Your task to perform on an android device: Open privacy settings Image 0: 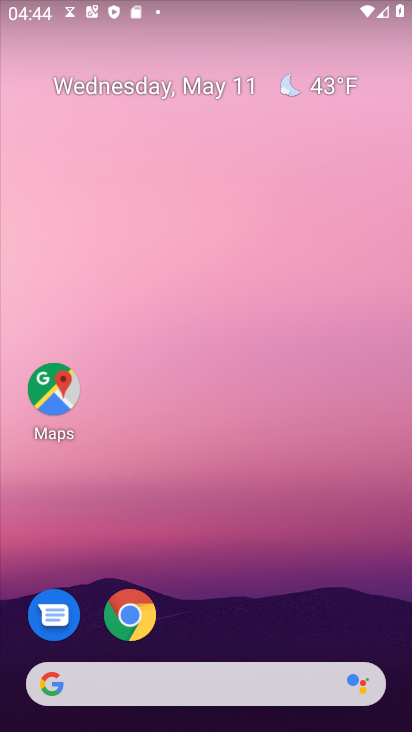
Step 0: drag from (253, 538) to (91, 16)
Your task to perform on an android device: Open privacy settings Image 1: 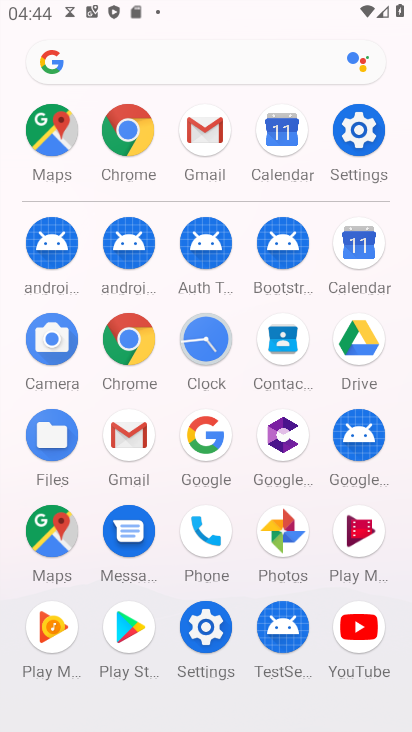
Step 1: drag from (6, 451) to (14, 153)
Your task to perform on an android device: Open privacy settings Image 2: 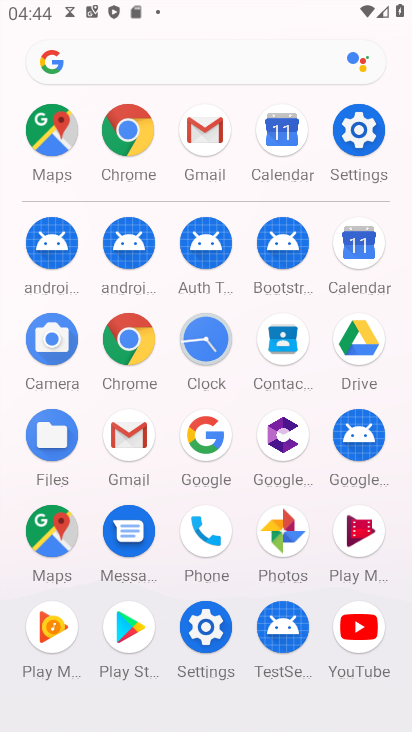
Step 2: drag from (8, 449) to (31, 164)
Your task to perform on an android device: Open privacy settings Image 3: 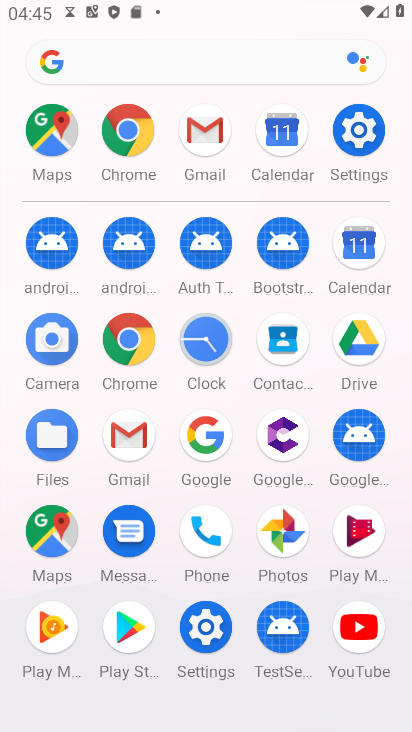
Step 3: click (206, 623)
Your task to perform on an android device: Open privacy settings Image 4: 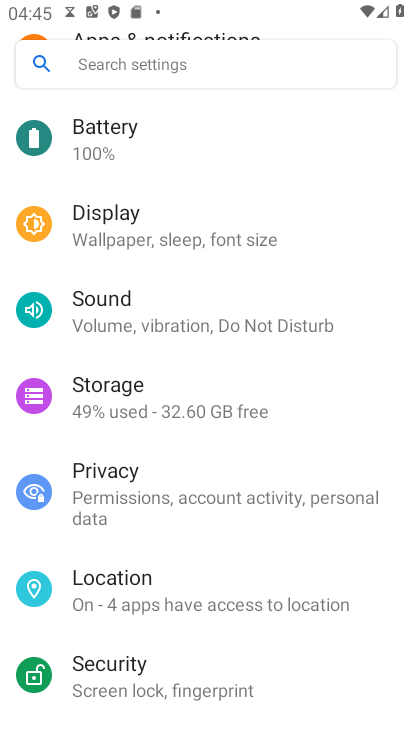
Step 4: drag from (177, 536) to (228, 175)
Your task to perform on an android device: Open privacy settings Image 5: 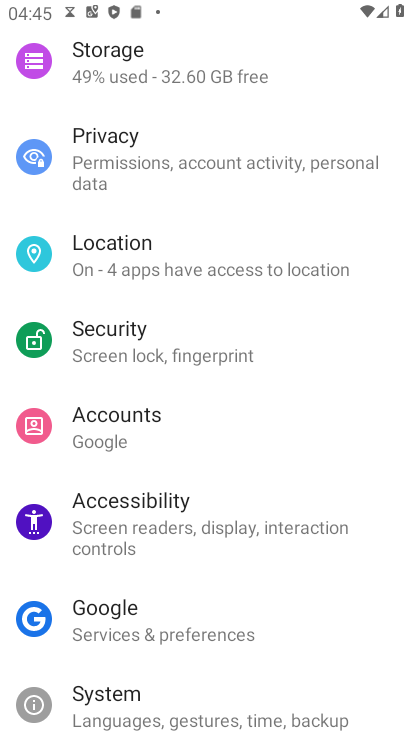
Step 5: click (132, 162)
Your task to perform on an android device: Open privacy settings Image 6: 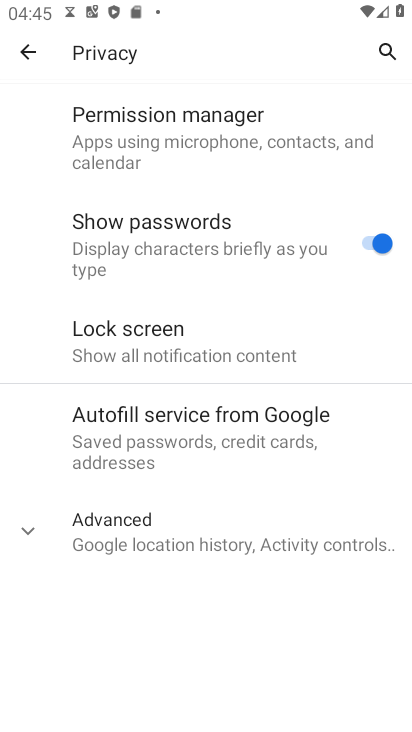
Step 6: click (35, 510)
Your task to perform on an android device: Open privacy settings Image 7: 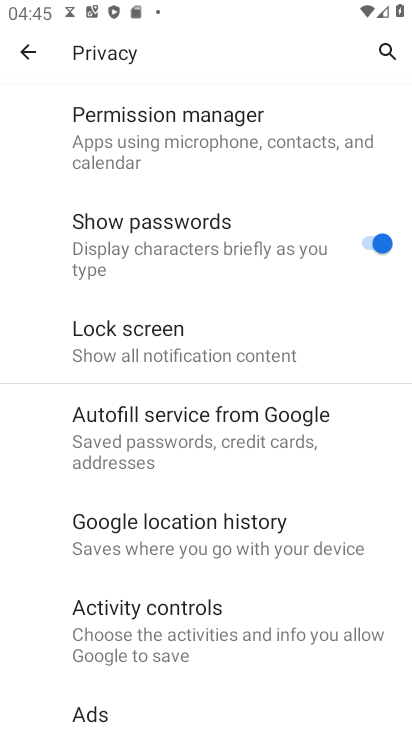
Step 7: task complete